Your task to perform on an android device: turn off javascript in the chrome app Image 0: 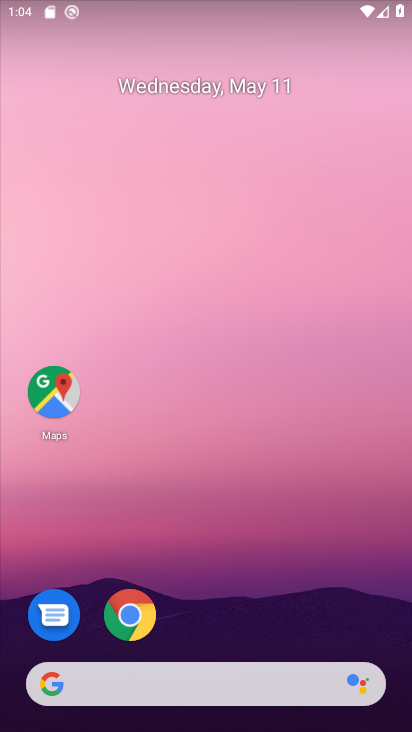
Step 0: drag from (345, 578) to (321, 204)
Your task to perform on an android device: turn off javascript in the chrome app Image 1: 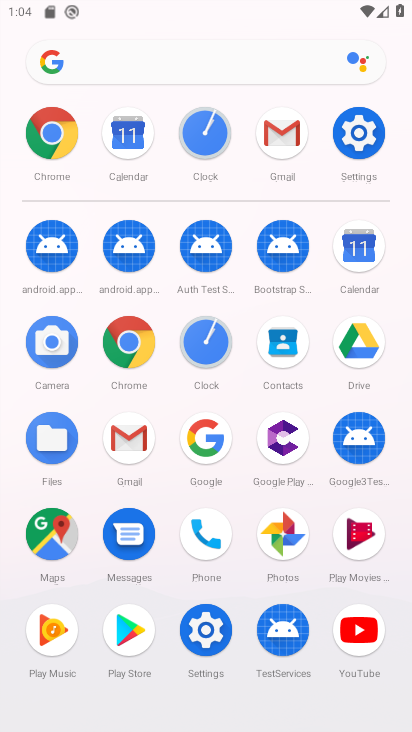
Step 1: click (106, 355)
Your task to perform on an android device: turn off javascript in the chrome app Image 2: 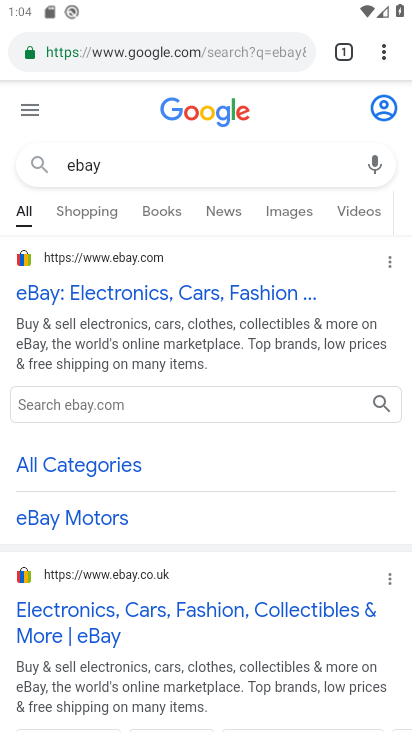
Step 2: drag from (382, 48) to (275, 575)
Your task to perform on an android device: turn off javascript in the chrome app Image 3: 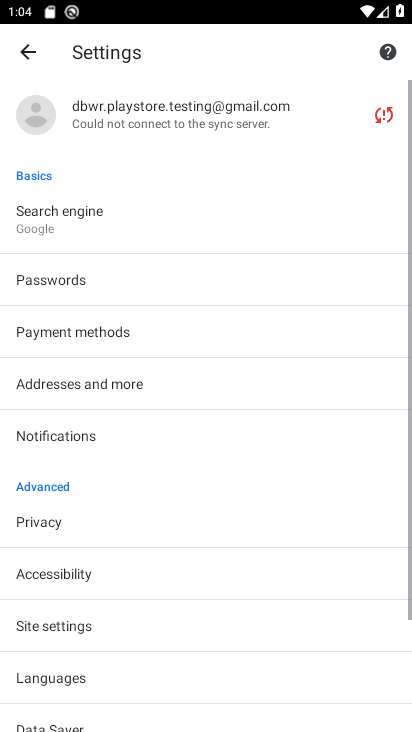
Step 3: drag from (255, 638) to (268, 280)
Your task to perform on an android device: turn off javascript in the chrome app Image 4: 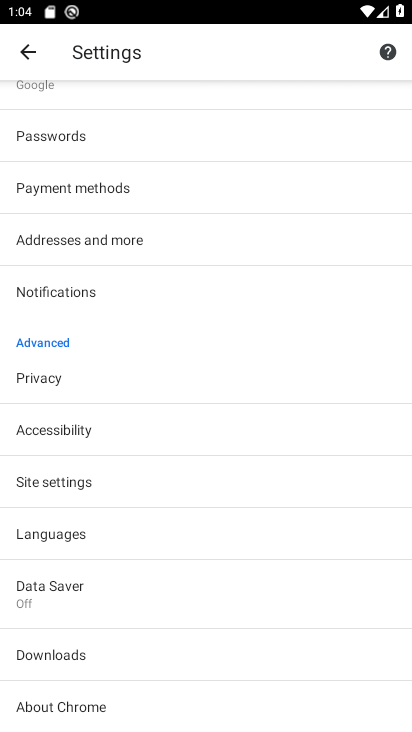
Step 4: click (193, 497)
Your task to perform on an android device: turn off javascript in the chrome app Image 5: 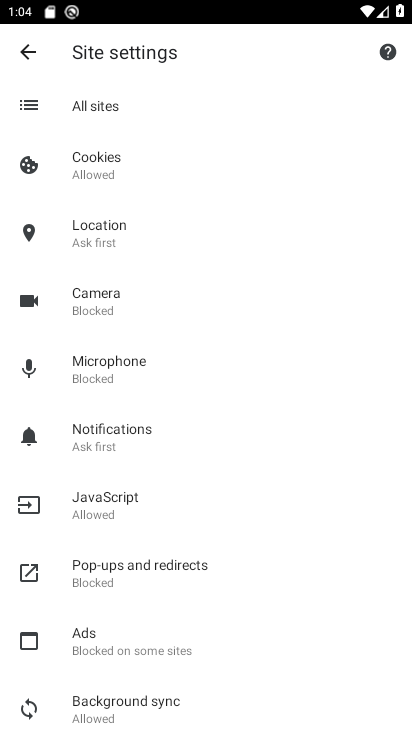
Step 5: click (204, 510)
Your task to perform on an android device: turn off javascript in the chrome app Image 6: 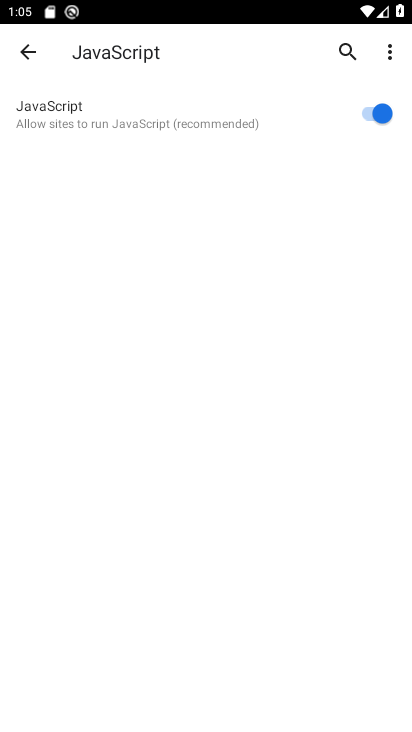
Step 6: click (374, 115)
Your task to perform on an android device: turn off javascript in the chrome app Image 7: 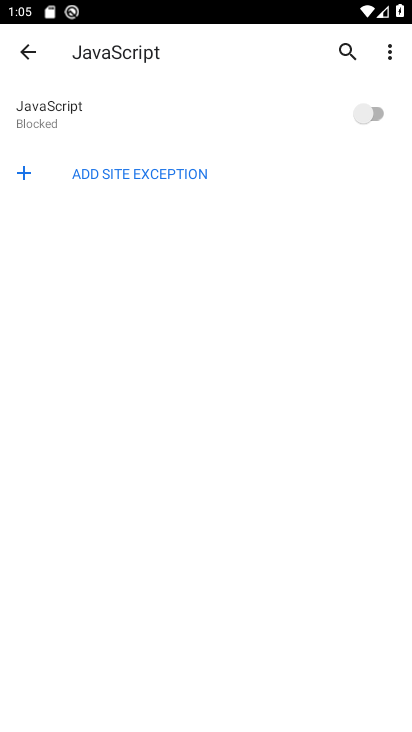
Step 7: task complete